Your task to perform on an android device: Go to internet settings Image 0: 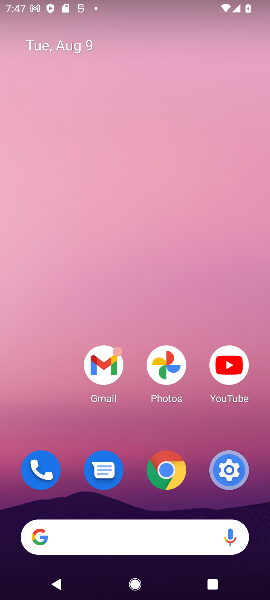
Step 0: click (267, 92)
Your task to perform on an android device: Go to internet settings Image 1: 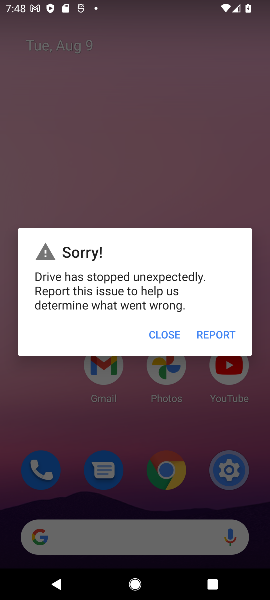
Step 1: click (159, 337)
Your task to perform on an android device: Go to internet settings Image 2: 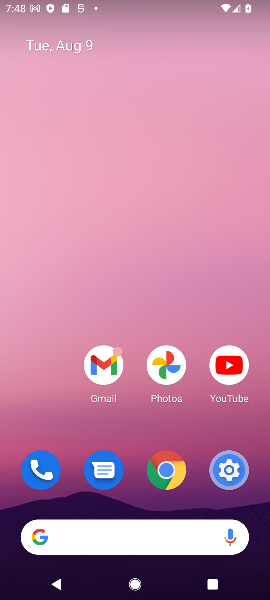
Step 2: click (169, 19)
Your task to perform on an android device: Go to internet settings Image 3: 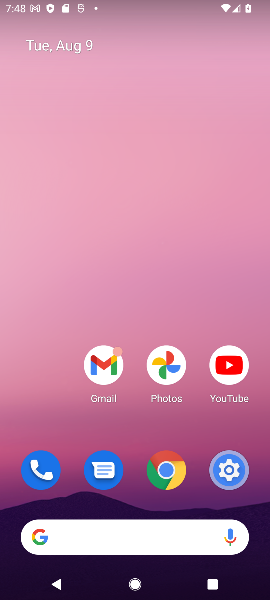
Step 3: click (222, 468)
Your task to perform on an android device: Go to internet settings Image 4: 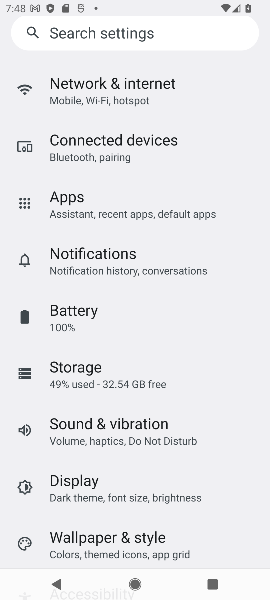
Step 4: click (113, 88)
Your task to perform on an android device: Go to internet settings Image 5: 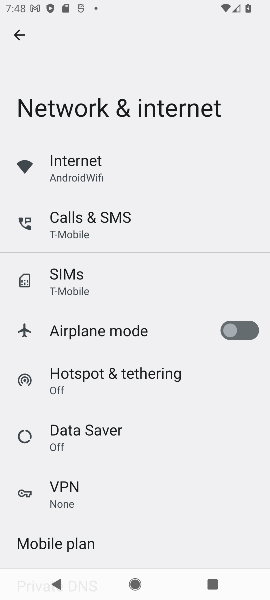
Step 5: click (95, 165)
Your task to perform on an android device: Go to internet settings Image 6: 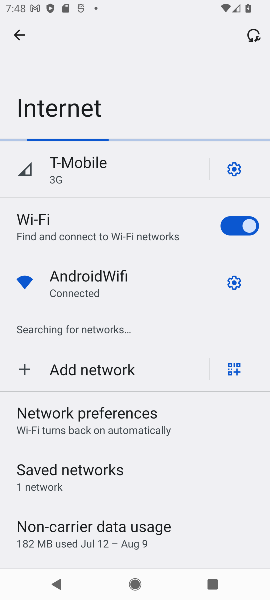
Step 6: task complete